Your task to perform on an android device: Go to Google maps Image 0: 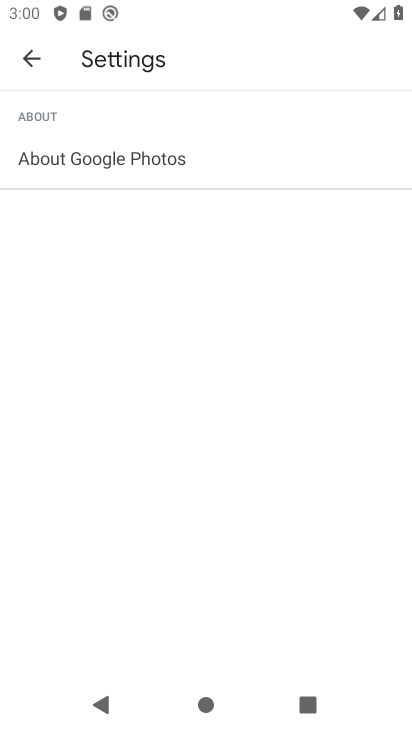
Step 0: press home button
Your task to perform on an android device: Go to Google maps Image 1: 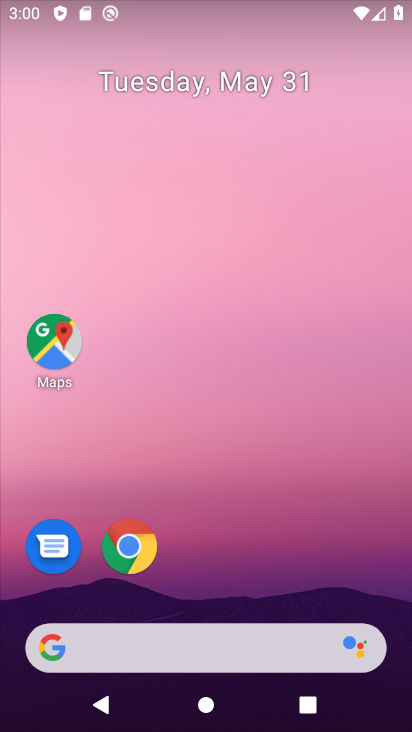
Step 1: drag from (241, 593) to (216, 225)
Your task to perform on an android device: Go to Google maps Image 2: 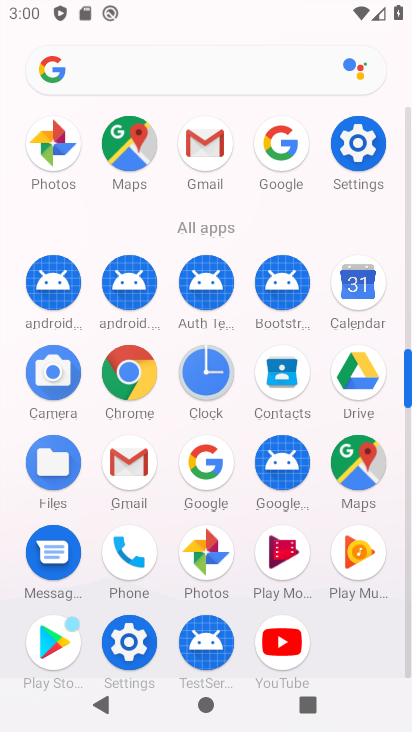
Step 2: click (360, 487)
Your task to perform on an android device: Go to Google maps Image 3: 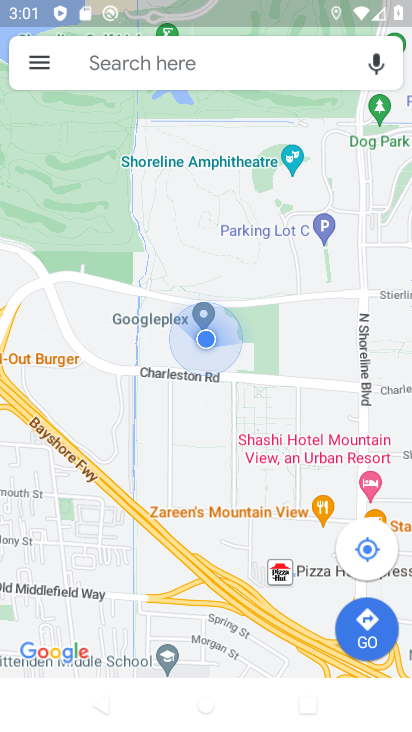
Step 3: task complete